Your task to perform on an android device: Open Android settings Image 0: 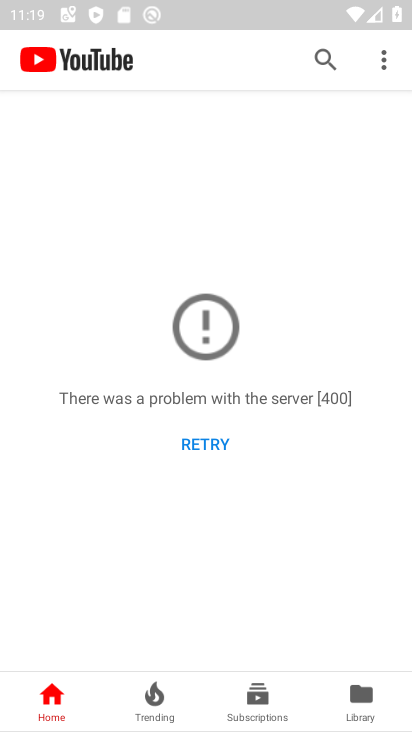
Step 0: press home button
Your task to perform on an android device: Open Android settings Image 1: 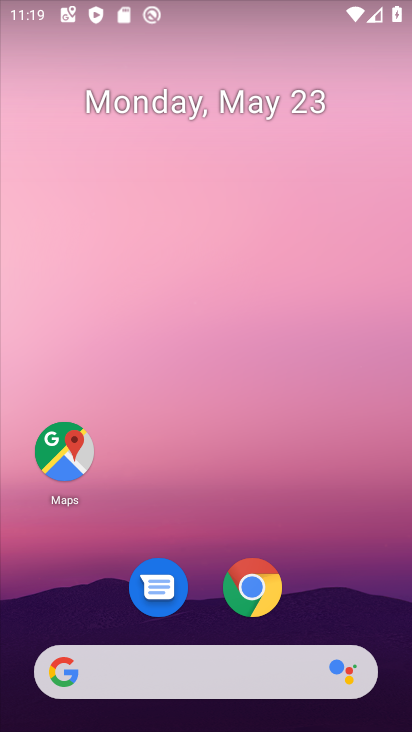
Step 1: drag from (393, 636) to (281, 159)
Your task to perform on an android device: Open Android settings Image 2: 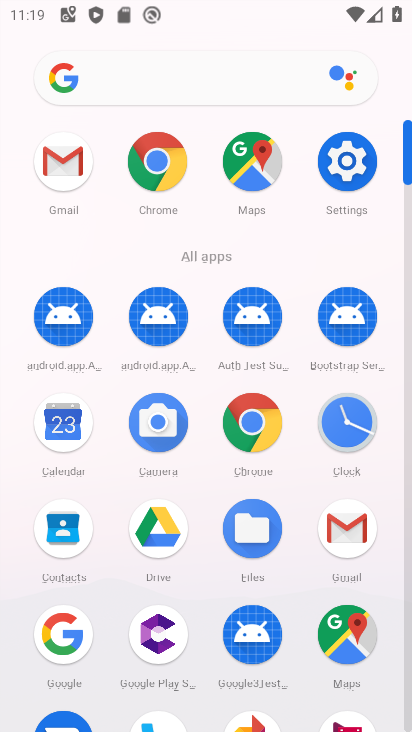
Step 2: click (347, 165)
Your task to perform on an android device: Open Android settings Image 3: 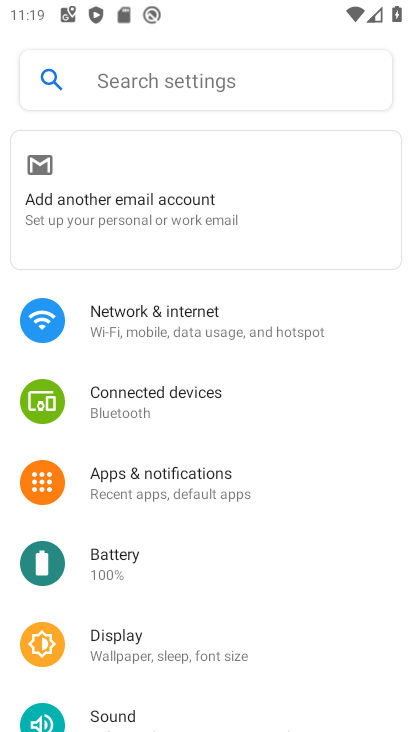
Step 3: task complete